Your task to perform on an android device: Open Chrome and go to settings Image 0: 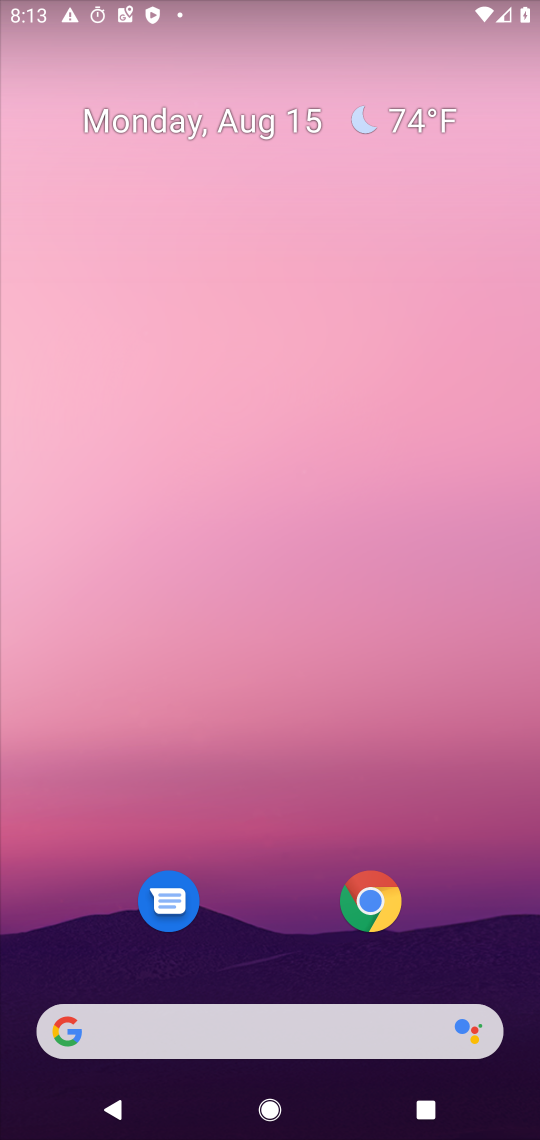
Step 0: drag from (259, 935) to (163, 35)
Your task to perform on an android device: Open Chrome and go to settings Image 1: 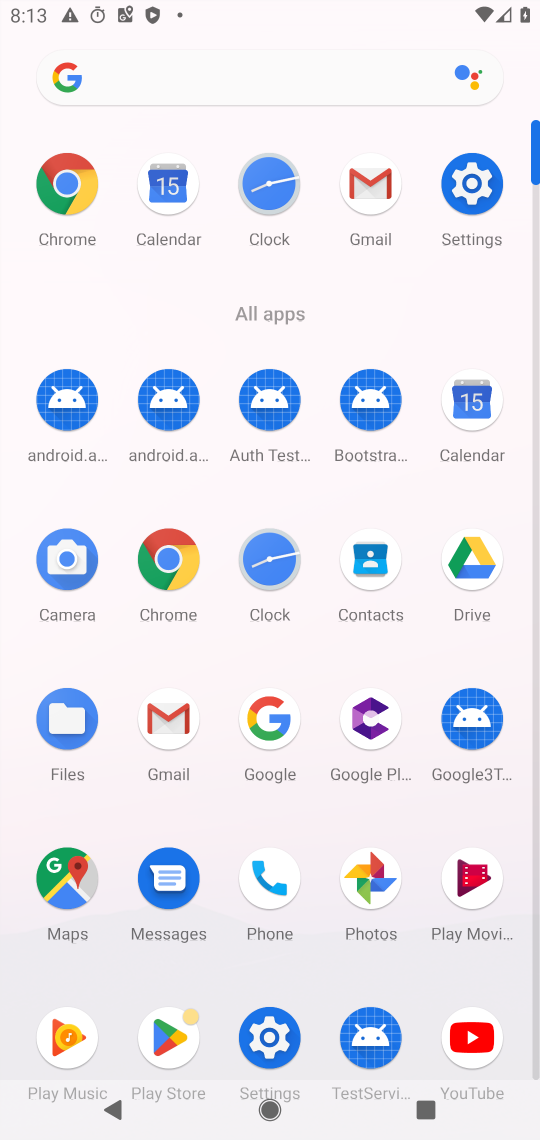
Step 1: click (169, 579)
Your task to perform on an android device: Open Chrome and go to settings Image 2: 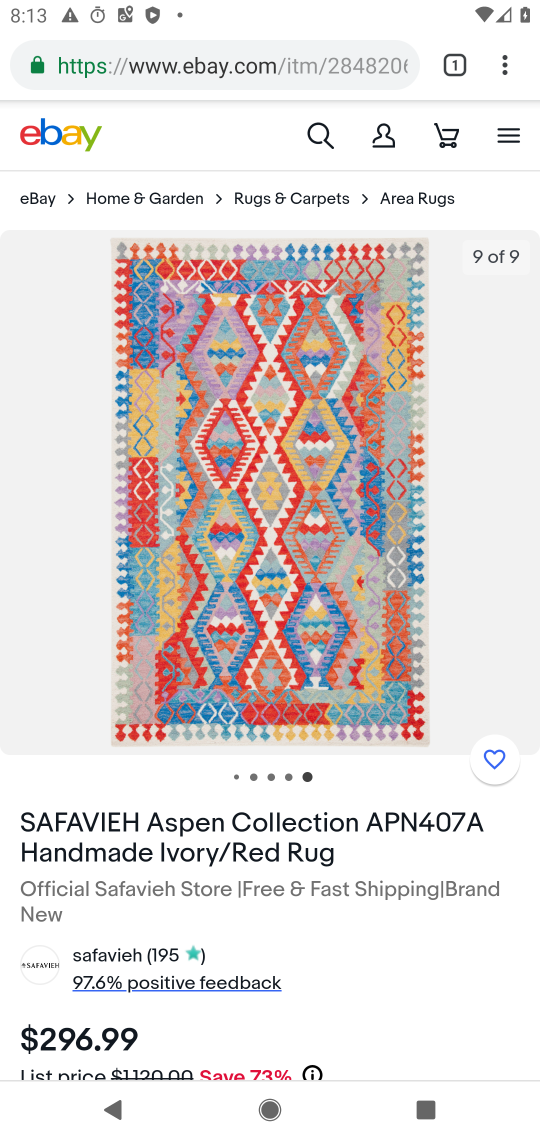
Step 2: click (501, 57)
Your task to perform on an android device: Open Chrome and go to settings Image 3: 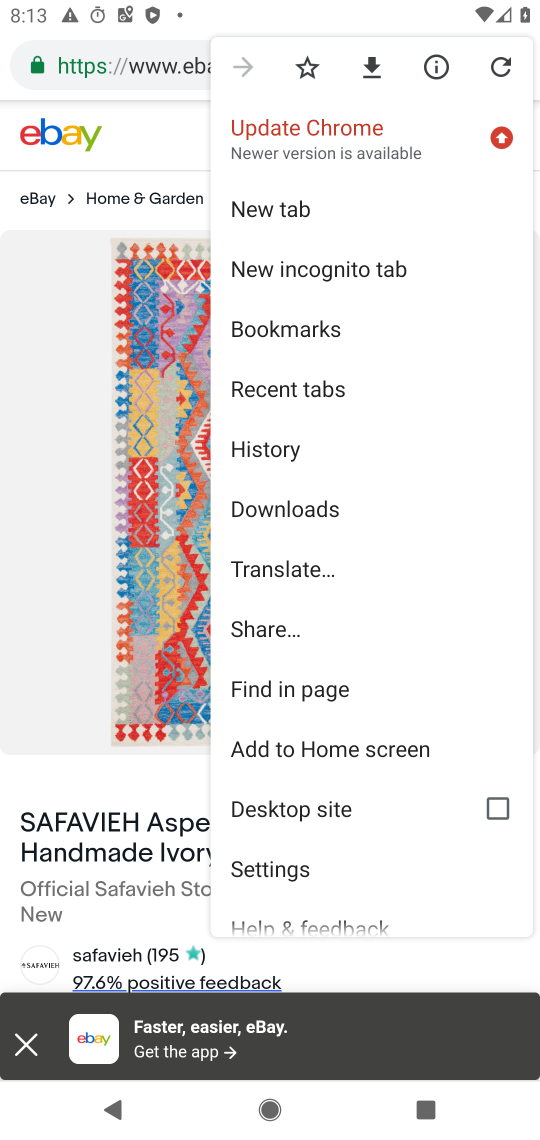
Step 3: click (281, 870)
Your task to perform on an android device: Open Chrome and go to settings Image 4: 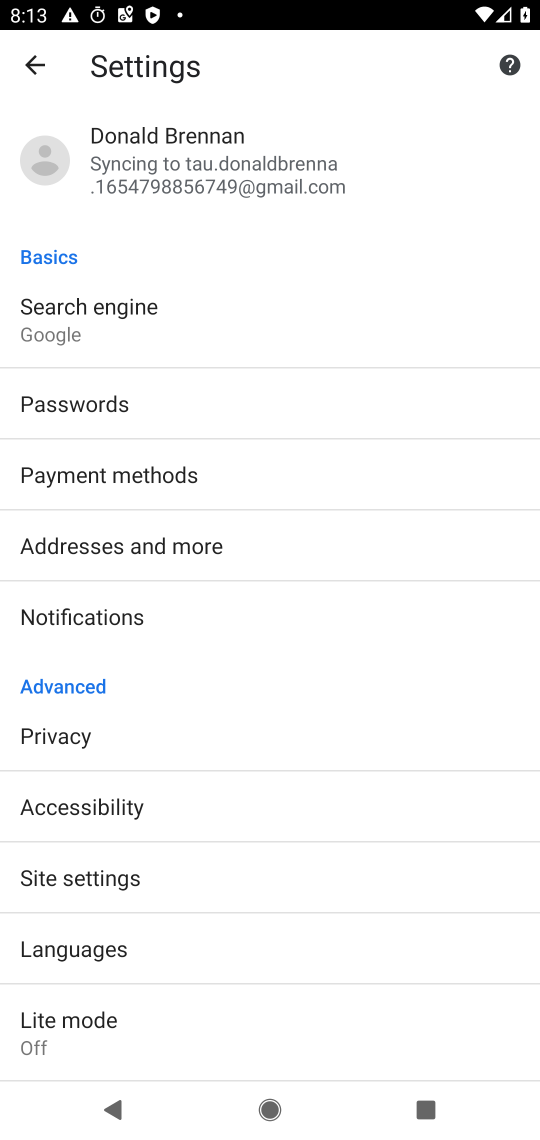
Step 4: task complete